Your task to perform on an android device: Go to network settings Image 0: 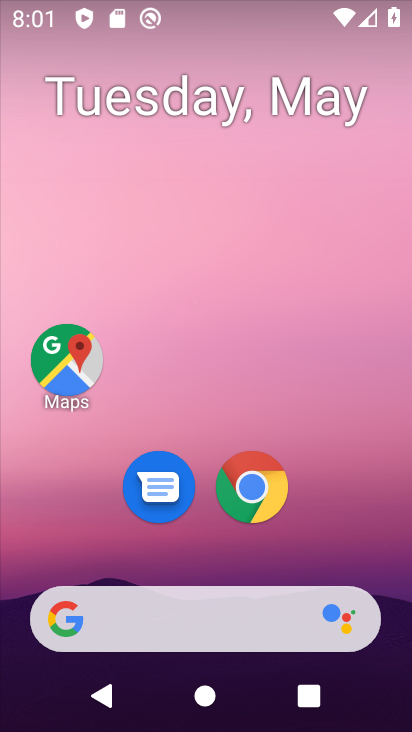
Step 0: drag from (238, 408) to (141, 123)
Your task to perform on an android device: Go to network settings Image 1: 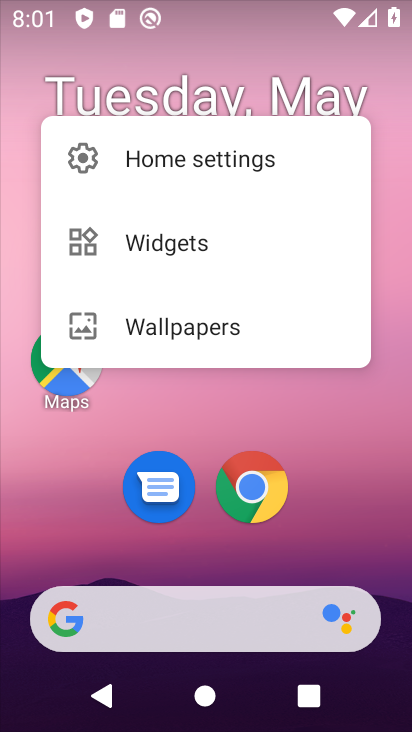
Step 1: click (337, 500)
Your task to perform on an android device: Go to network settings Image 2: 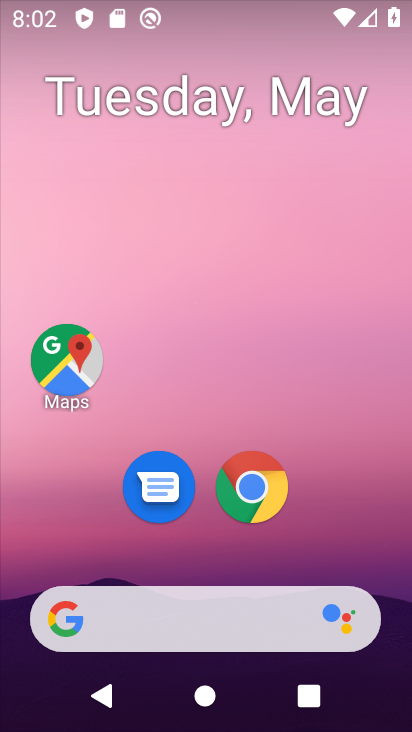
Step 2: drag from (337, 500) to (178, 7)
Your task to perform on an android device: Go to network settings Image 3: 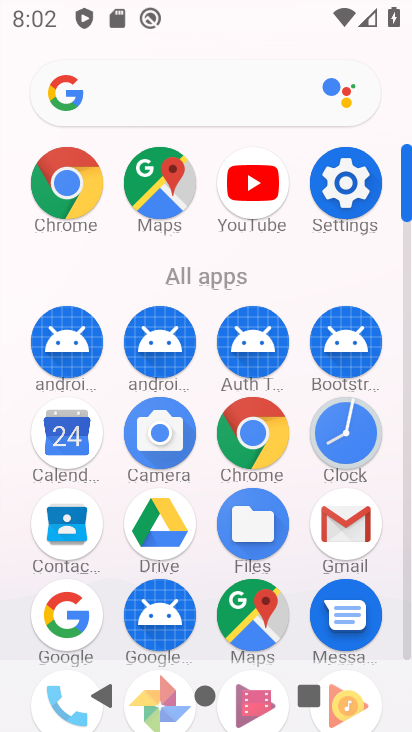
Step 3: click (338, 167)
Your task to perform on an android device: Go to network settings Image 4: 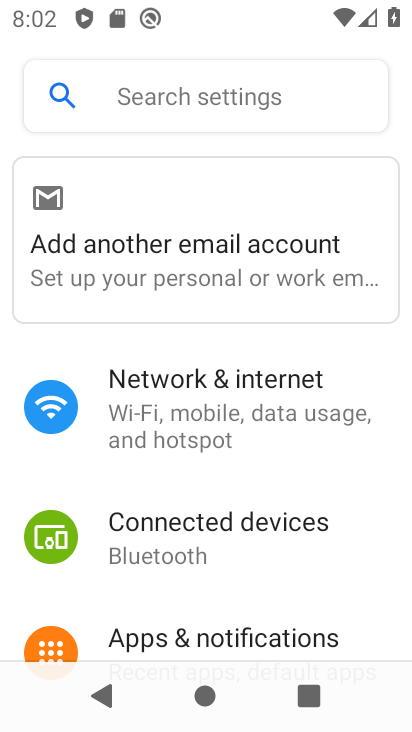
Step 4: click (268, 393)
Your task to perform on an android device: Go to network settings Image 5: 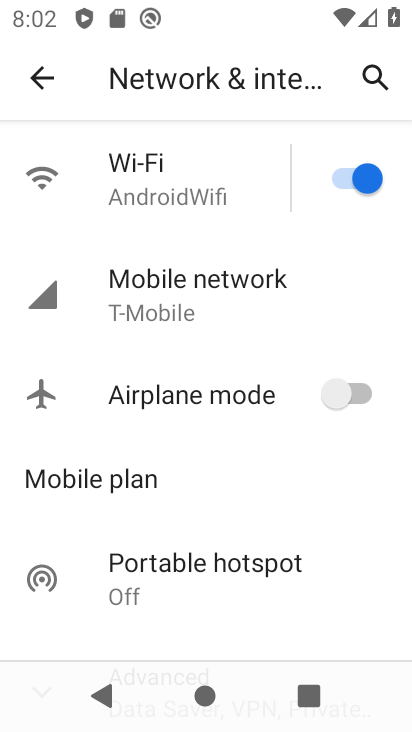
Step 5: task complete